Your task to perform on an android device: Open Android settings Image 0: 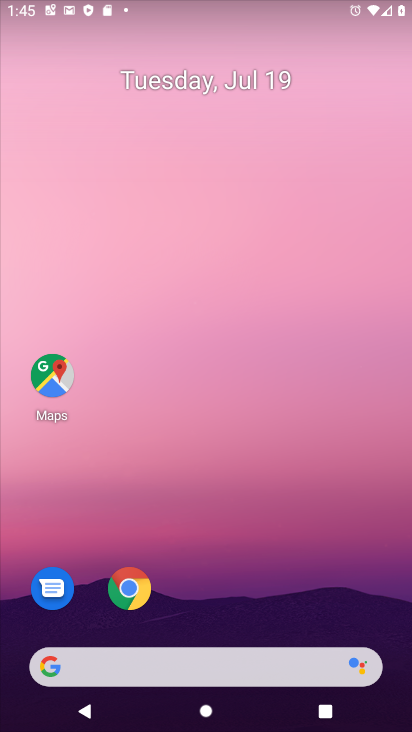
Step 0: drag from (388, 595) to (368, 16)
Your task to perform on an android device: Open Android settings Image 1: 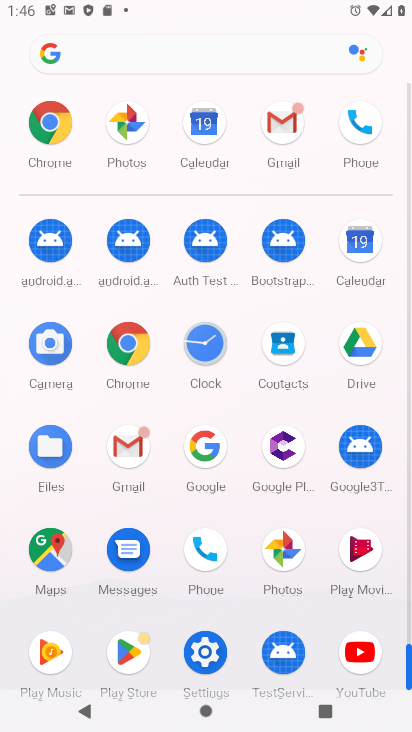
Step 1: click (197, 665)
Your task to perform on an android device: Open Android settings Image 2: 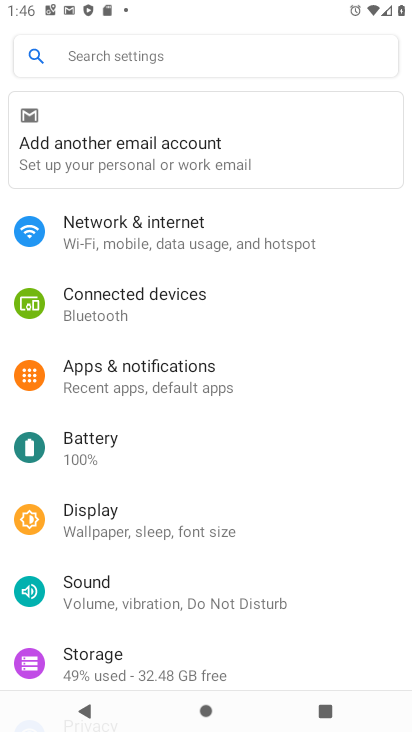
Step 2: task complete